Your task to perform on an android device: open a bookmark in the chrome app Image 0: 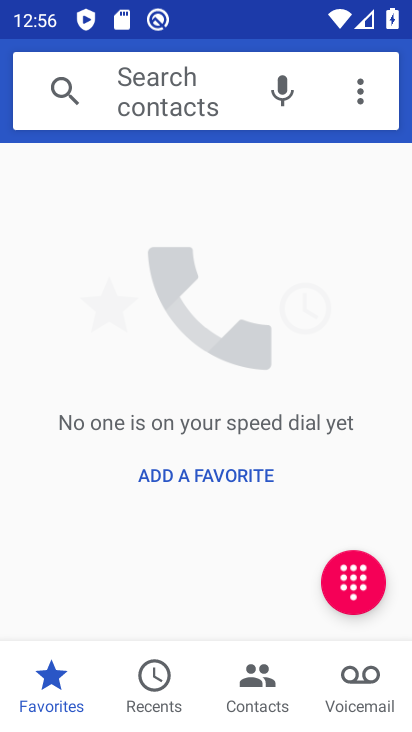
Step 0: press home button
Your task to perform on an android device: open a bookmark in the chrome app Image 1: 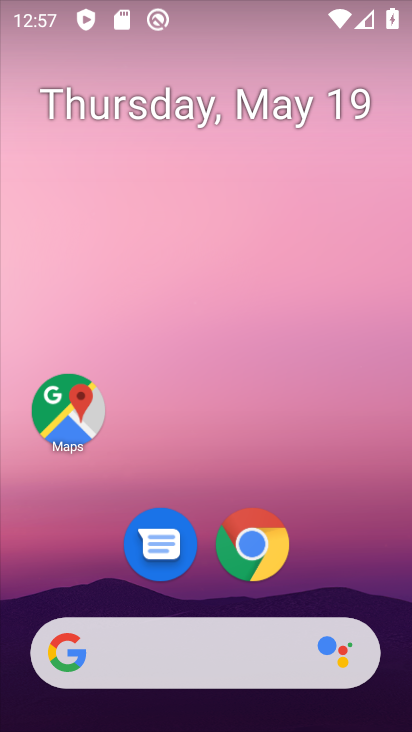
Step 1: drag from (257, 675) to (100, 127)
Your task to perform on an android device: open a bookmark in the chrome app Image 2: 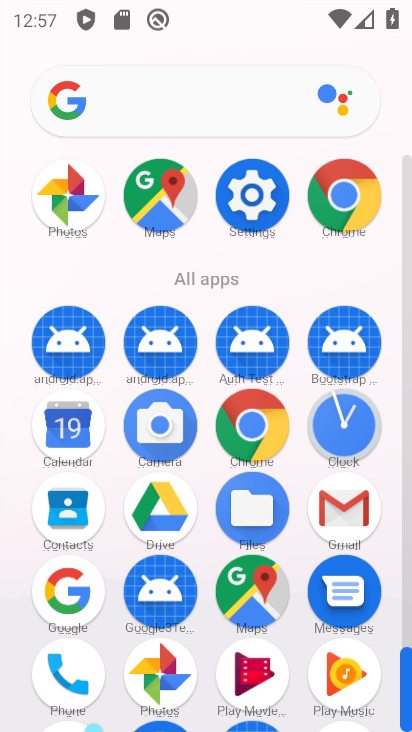
Step 2: click (333, 189)
Your task to perform on an android device: open a bookmark in the chrome app Image 3: 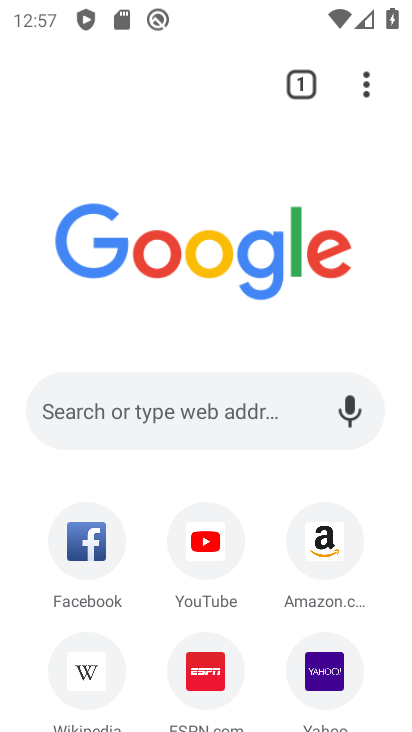
Step 3: click (367, 83)
Your task to perform on an android device: open a bookmark in the chrome app Image 4: 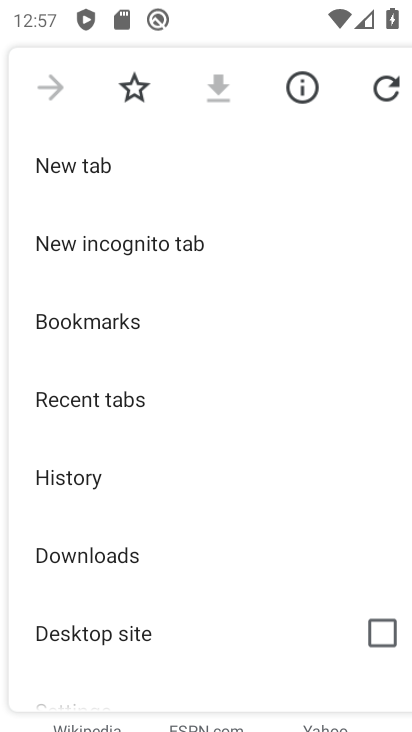
Step 4: click (87, 329)
Your task to perform on an android device: open a bookmark in the chrome app Image 5: 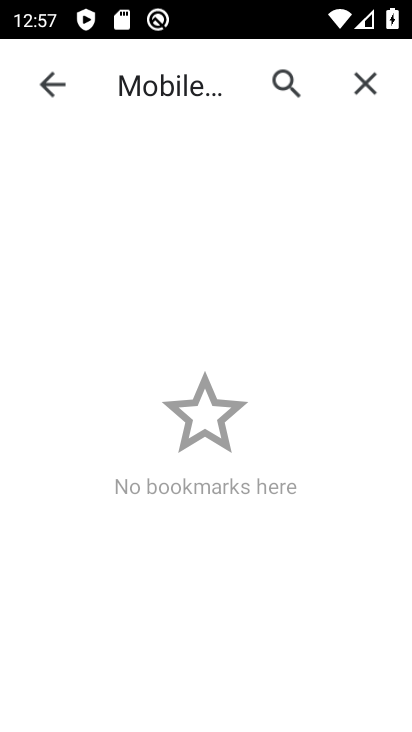
Step 5: task complete